Your task to perform on an android device: Open battery settings Image 0: 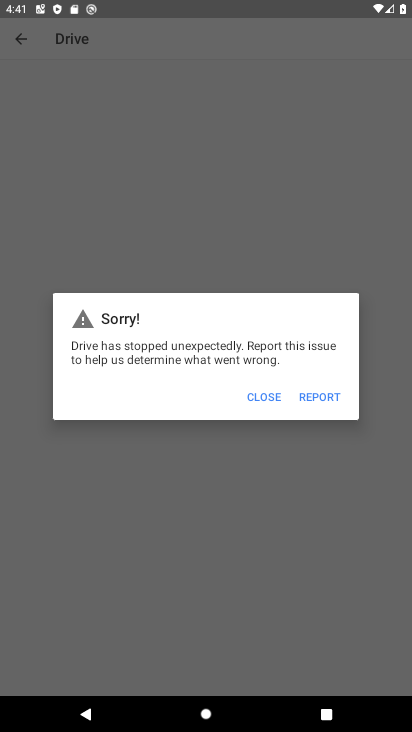
Step 0: press back button
Your task to perform on an android device: Open battery settings Image 1: 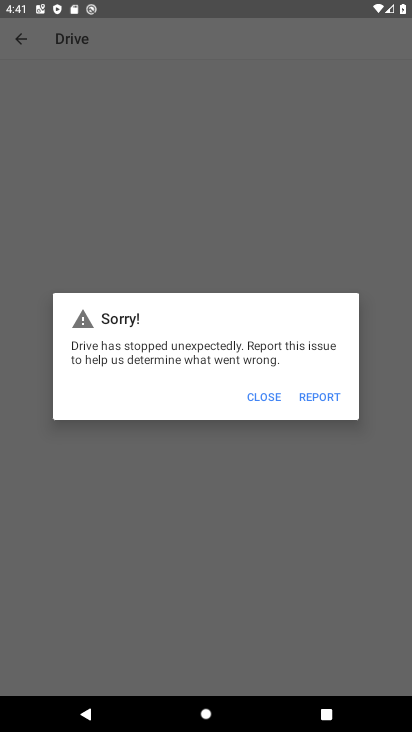
Step 1: press back button
Your task to perform on an android device: Open battery settings Image 2: 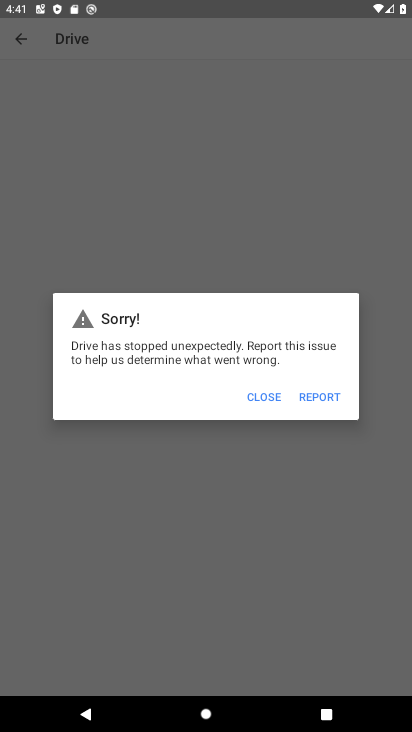
Step 2: press home button
Your task to perform on an android device: Open battery settings Image 3: 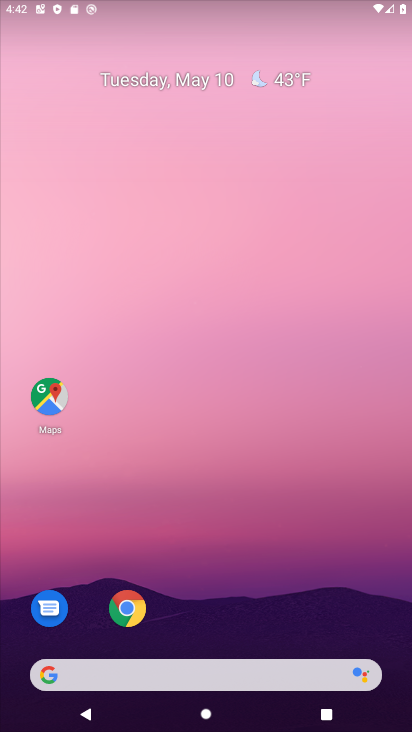
Step 3: drag from (219, 598) to (357, 50)
Your task to perform on an android device: Open battery settings Image 4: 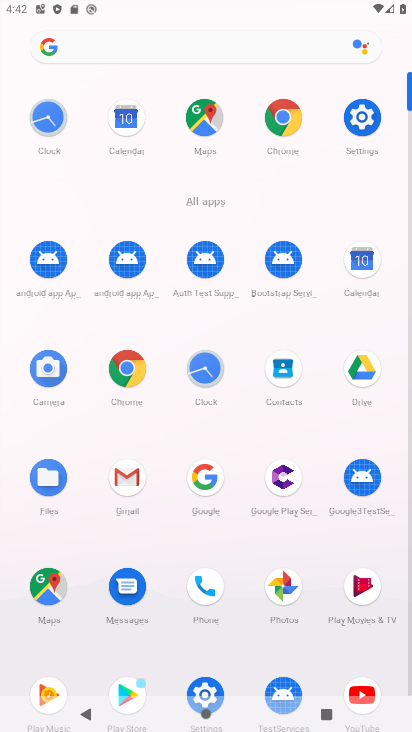
Step 4: click (369, 122)
Your task to perform on an android device: Open battery settings Image 5: 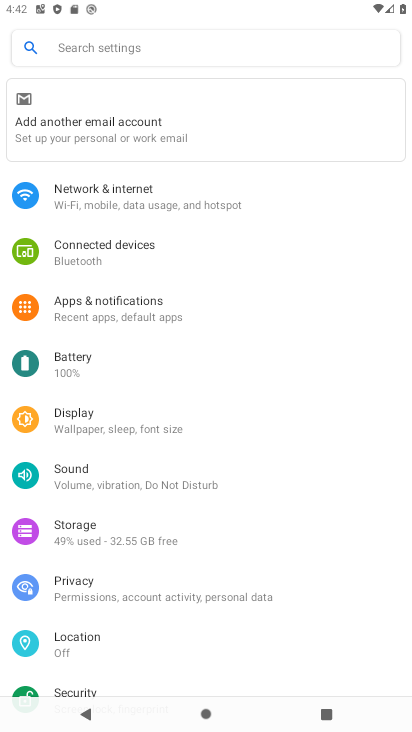
Step 5: click (106, 364)
Your task to perform on an android device: Open battery settings Image 6: 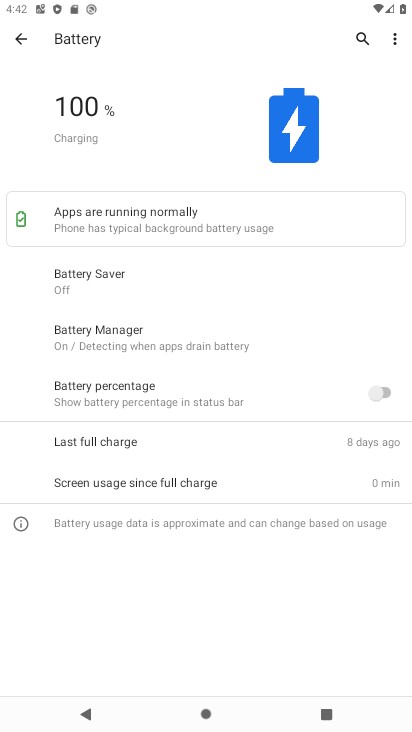
Step 6: task complete